Your task to perform on an android device: Open the Play Movies app and select the watchlist tab. Image 0: 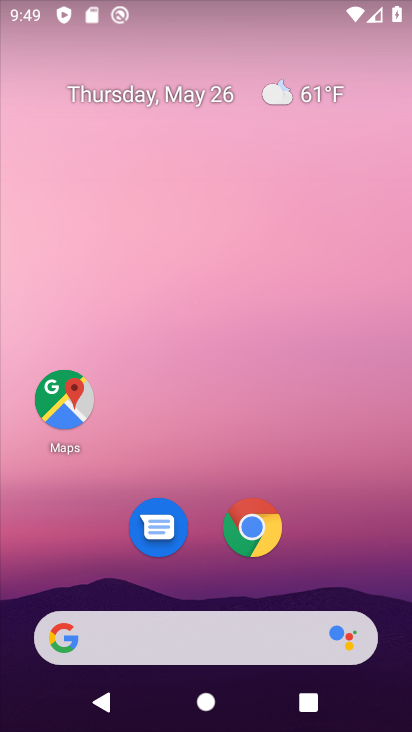
Step 0: drag from (194, 600) to (295, 64)
Your task to perform on an android device: Open the Play Movies app and select the watchlist tab. Image 1: 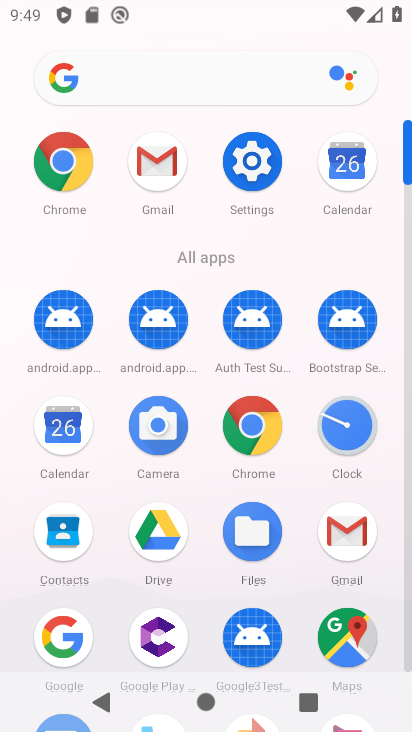
Step 1: drag from (196, 559) to (288, 37)
Your task to perform on an android device: Open the Play Movies app and select the watchlist tab. Image 2: 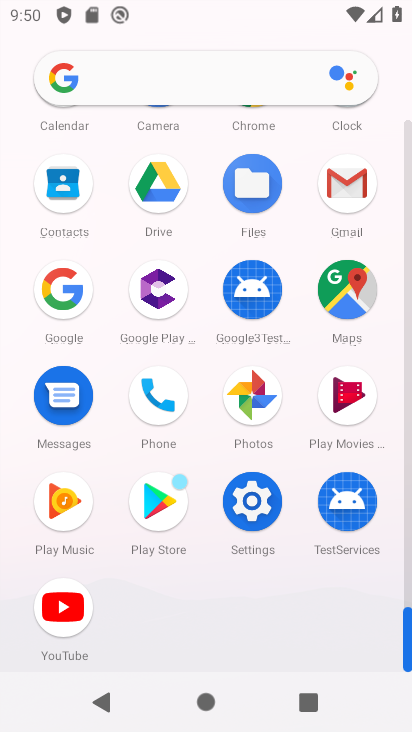
Step 2: click (339, 415)
Your task to perform on an android device: Open the Play Movies app and select the watchlist tab. Image 3: 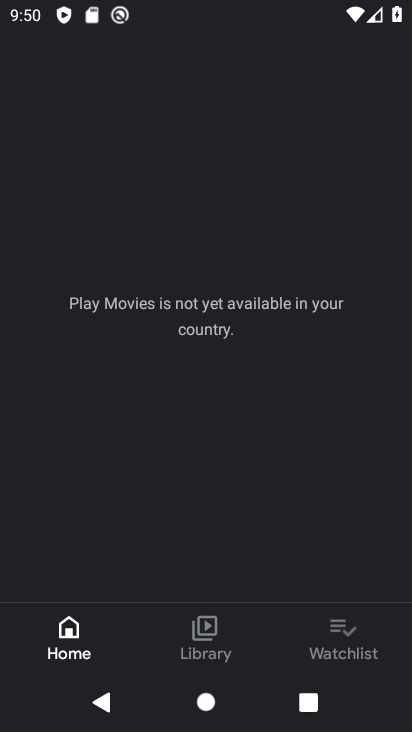
Step 3: click (335, 623)
Your task to perform on an android device: Open the Play Movies app and select the watchlist tab. Image 4: 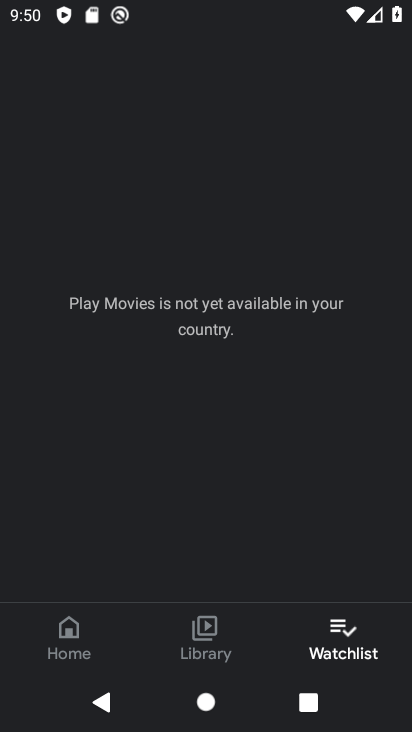
Step 4: task complete